Your task to perform on an android device: Open Google Maps and go to "Timeline" Image 0: 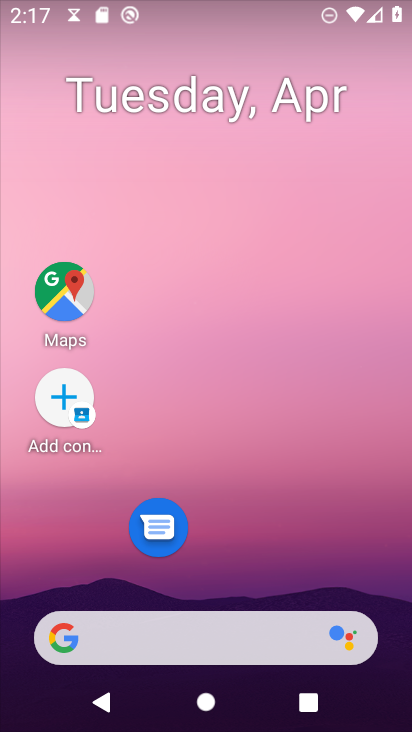
Step 0: click (66, 292)
Your task to perform on an android device: Open Google Maps and go to "Timeline" Image 1: 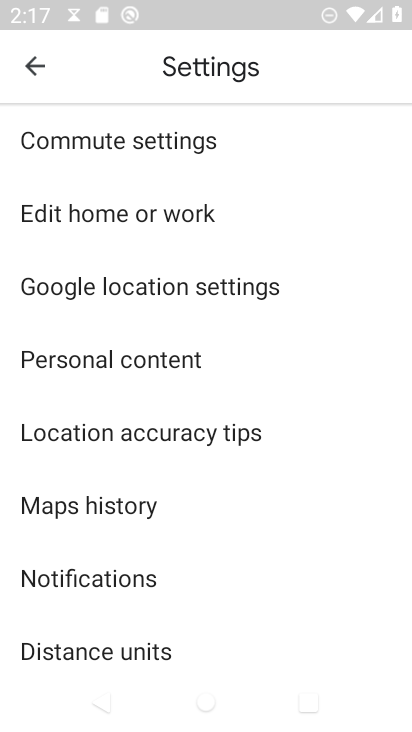
Step 1: press back button
Your task to perform on an android device: Open Google Maps and go to "Timeline" Image 2: 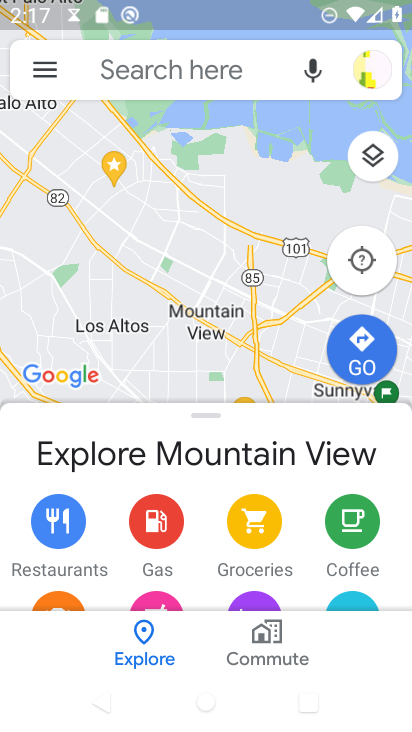
Step 2: click (50, 69)
Your task to perform on an android device: Open Google Maps and go to "Timeline" Image 3: 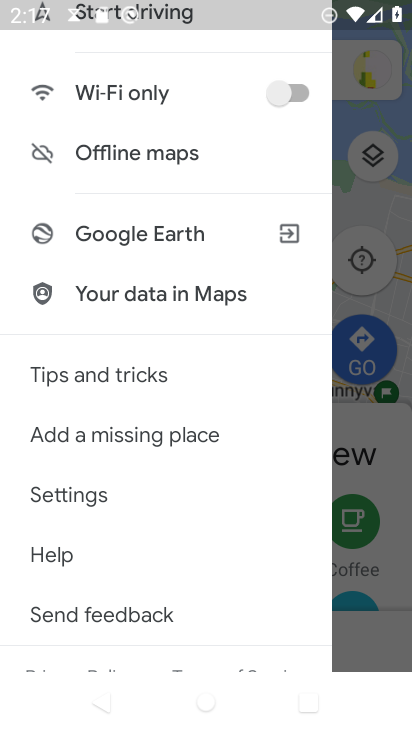
Step 3: drag from (124, 204) to (134, 346)
Your task to perform on an android device: Open Google Maps and go to "Timeline" Image 4: 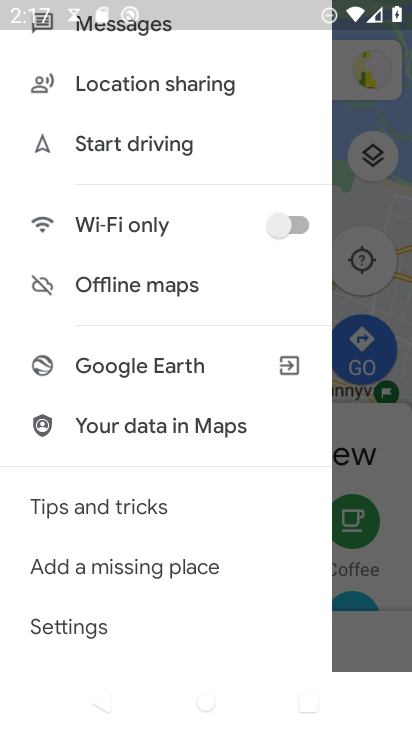
Step 4: drag from (148, 188) to (157, 312)
Your task to perform on an android device: Open Google Maps and go to "Timeline" Image 5: 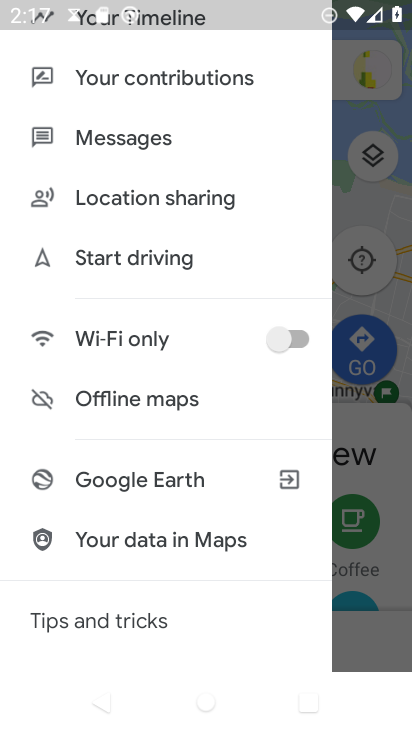
Step 5: drag from (164, 172) to (187, 346)
Your task to perform on an android device: Open Google Maps and go to "Timeline" Image 6: 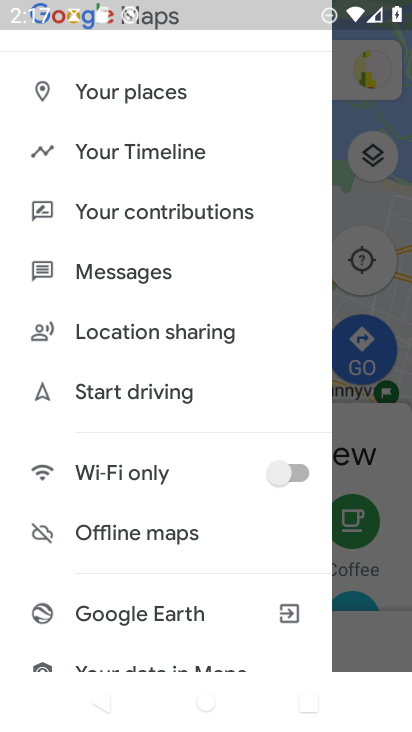
Step 6: click (176, 151)
Your task to perform on an android device: Open Google Maps and go to "Timeline" Image 7: 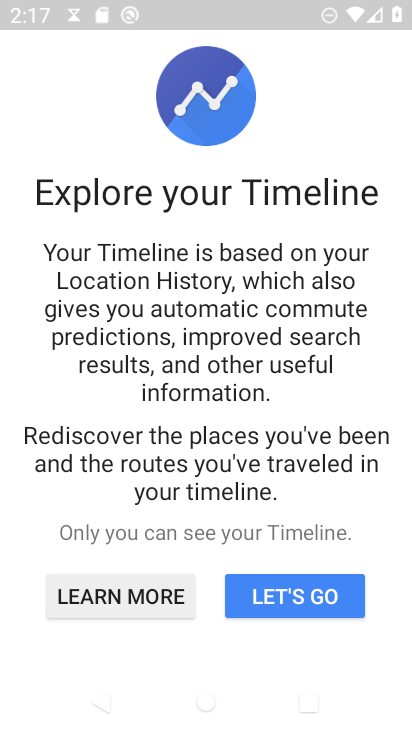
Step 7: click (298, 597)
Your task to perform on an android device: Open Google Maps and go to "Timeline" Image 8: 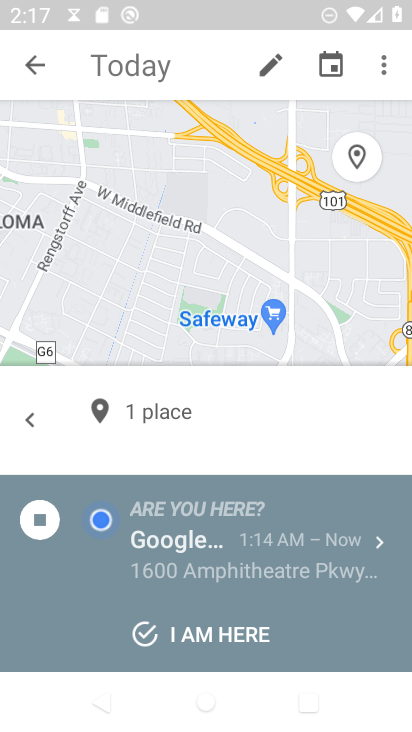
Step 8: task complete